Your task to perform on an android device: turn off smart reply in the gmail app Image 0: 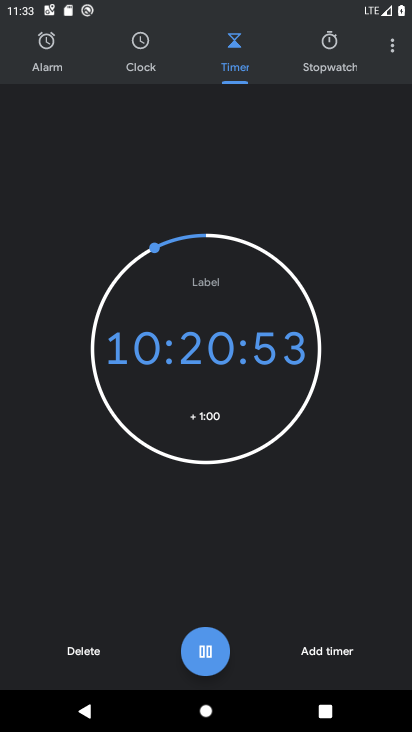
Step 0: press home button
Your task to perform on an android device: turn off smart reply in the gmail app Image 1: 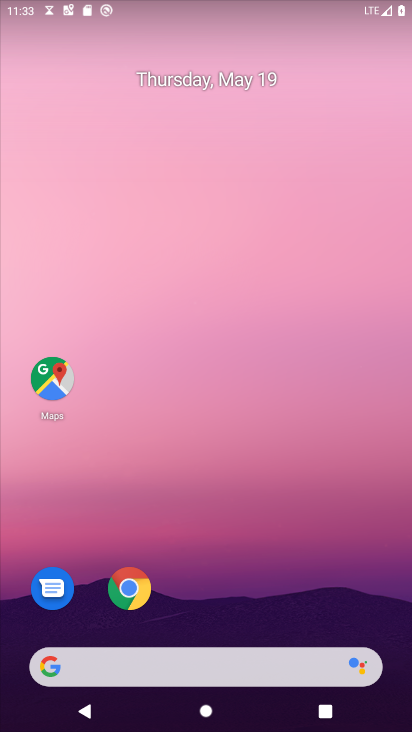
Step 1: drag from (293, 559) to (171, 20)
Your task to perform on an android device: turn off smart reply in the gmail app Image 2: 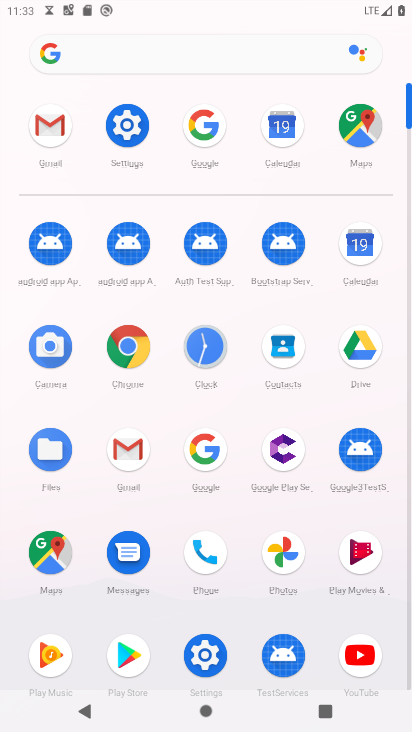
Step 2: click (127, 437)
Your task to perform on an android device: turn off smart reply in the gmail app Image 3: 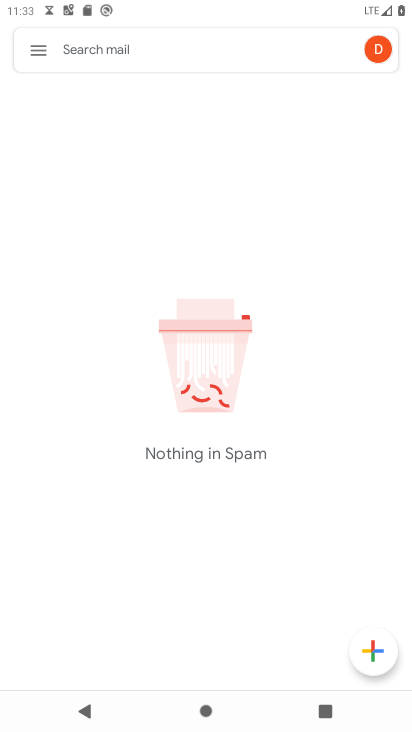
Step 3: click (47, 44)
Your task to perform on an android device: turn off smart reply in the gmail app Image 4: 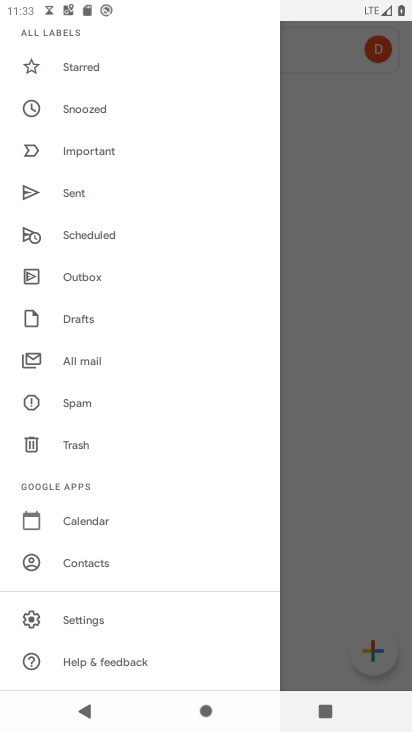
Step 4: click (118, 612)
Your task to perform on an android device: turn off smart reply in the gmail app Image 5: 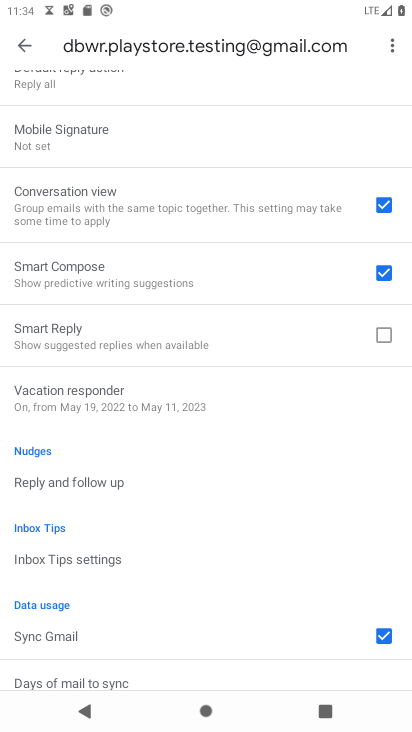
Step 5: task complete